Your task to perform on an android device: Go to battery settings Image 0: 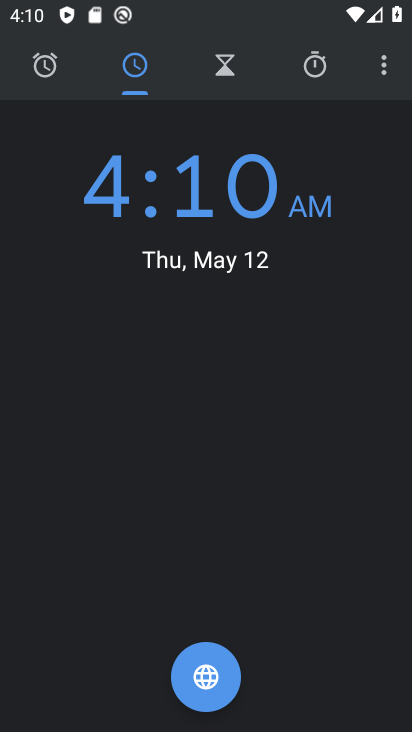
Step 0: press home button
Your task to perform on an android device: Go to battery settings Image 1: 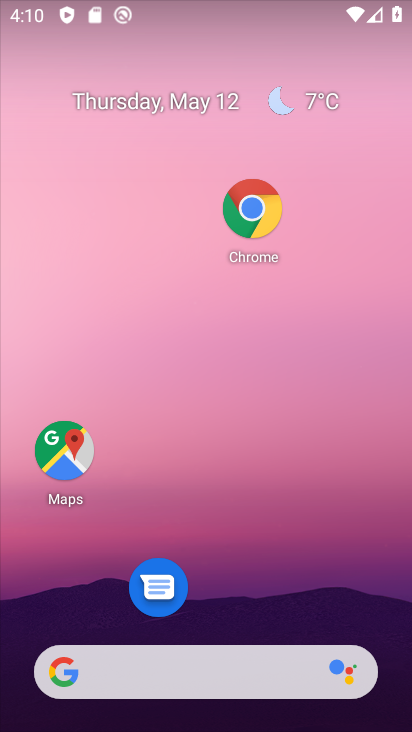
Step 1: drag from (238, 593) to (265, 74)
Your task to perform on an android device: Go to battery settings Image 2: 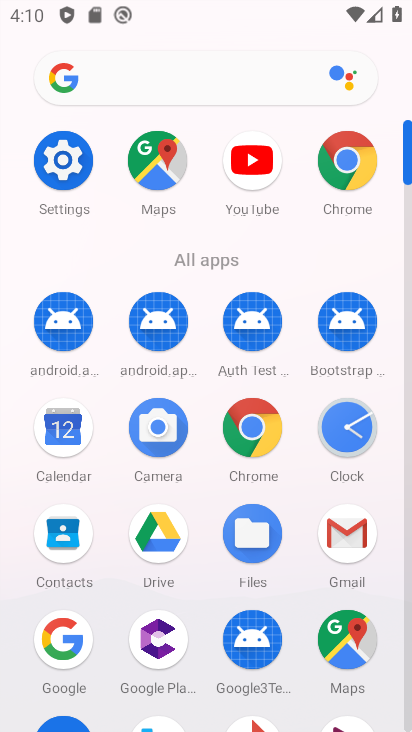
Step 2: click (59, 184)
Your task to perform on an android device: Go to battery settings Image 3: 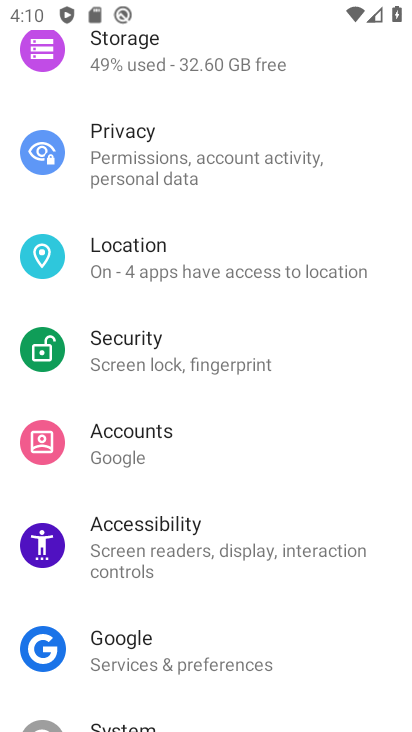
Step 3: drag from (163, 608) to (264, 249)
Your task to perform on an android device: Go to battery settings Image 4: 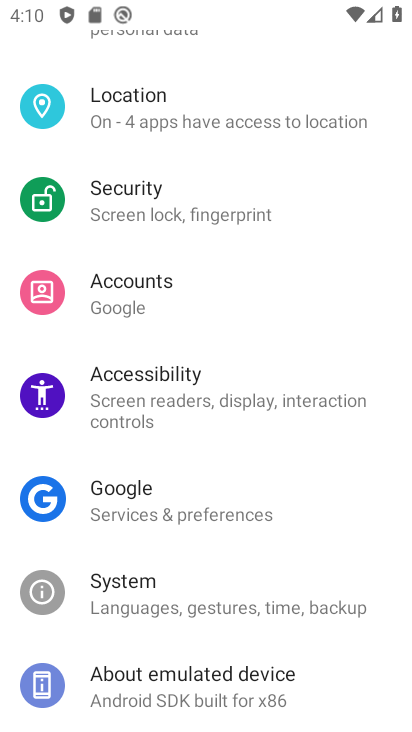
Step 4: drag from (182, 182) to (164, 556)
Your task to perform on an android device: Go to battery settings Image 5: 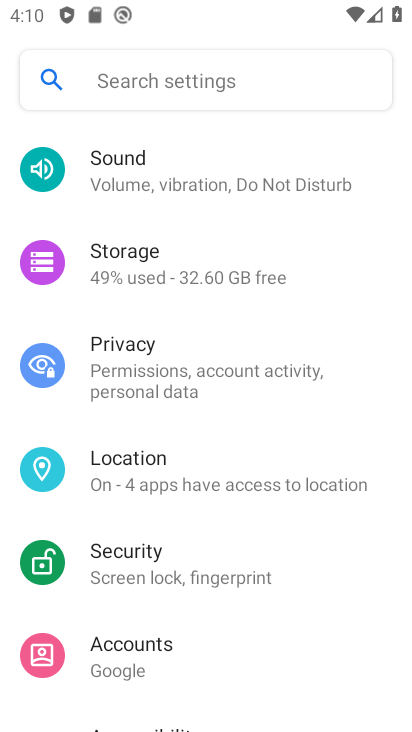
Step 5: drag from (223, 242) to (226, 597)
Your task to perform on an android device: Go to battery settings Image 6: 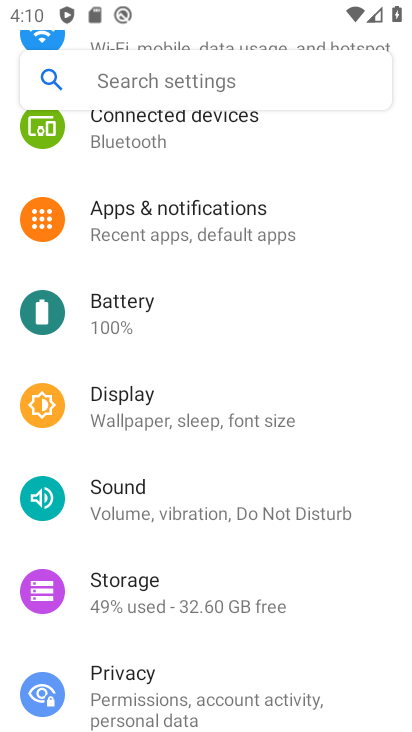
Step 6: click (127, 334)
Your task to perform on an android device: Go to battery settings Image 7: 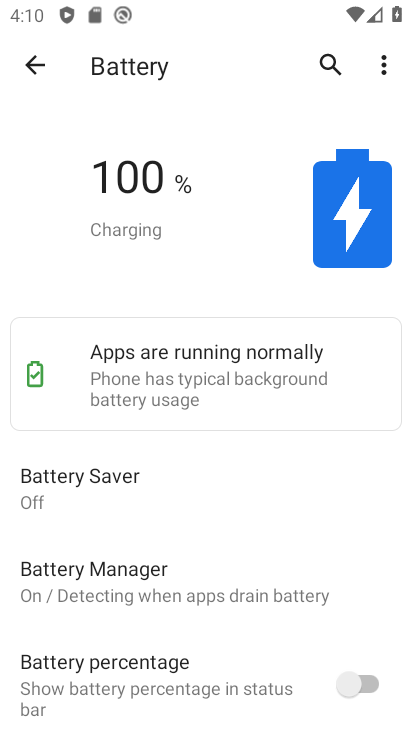
Step 7: task complete